Your task to perform on an android device: Open Google Chrome and click the shortcut for Amazon.com Image 0: 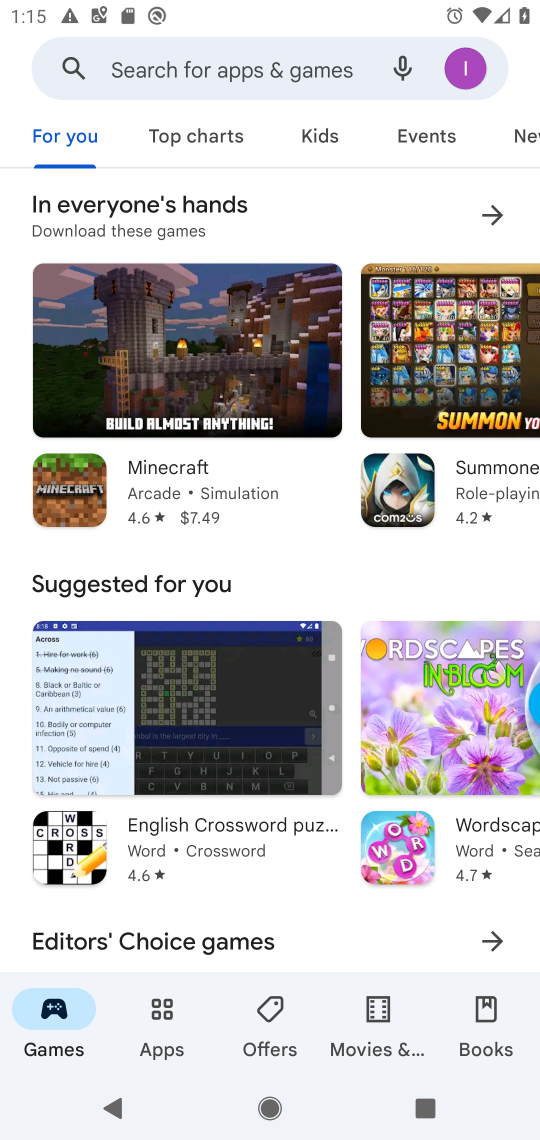
Step 0: press home button
Your task to perform on an android device: Open Google Chrome and click the shortcut for Amazon.com Image 1: 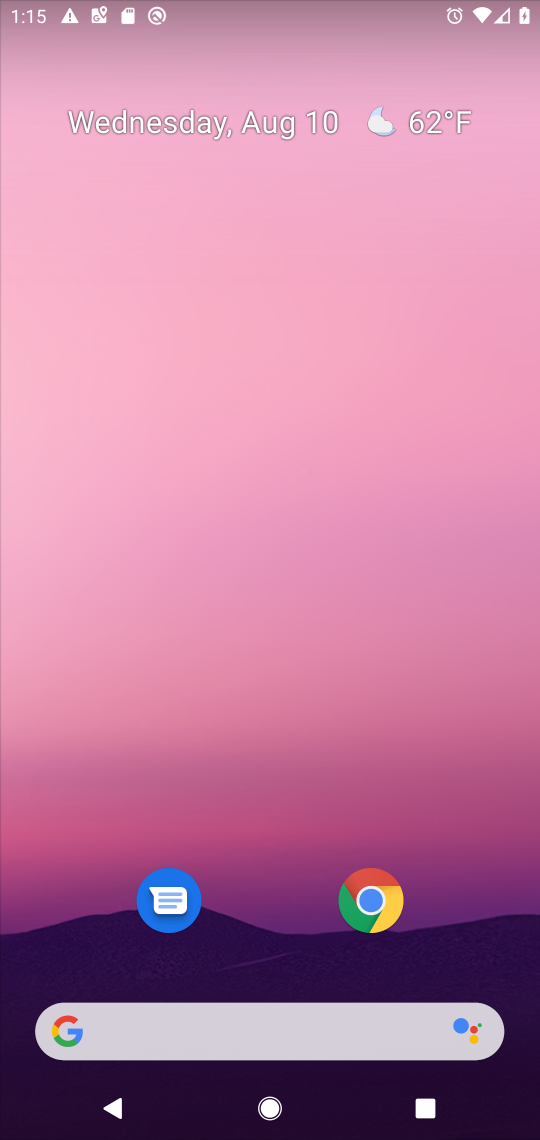
Step 1: drag from (254, 929) to (239, 13)
Your task to perform on an android device: Open Google Chrome and click the shortcut for Amazon.com Image 2: 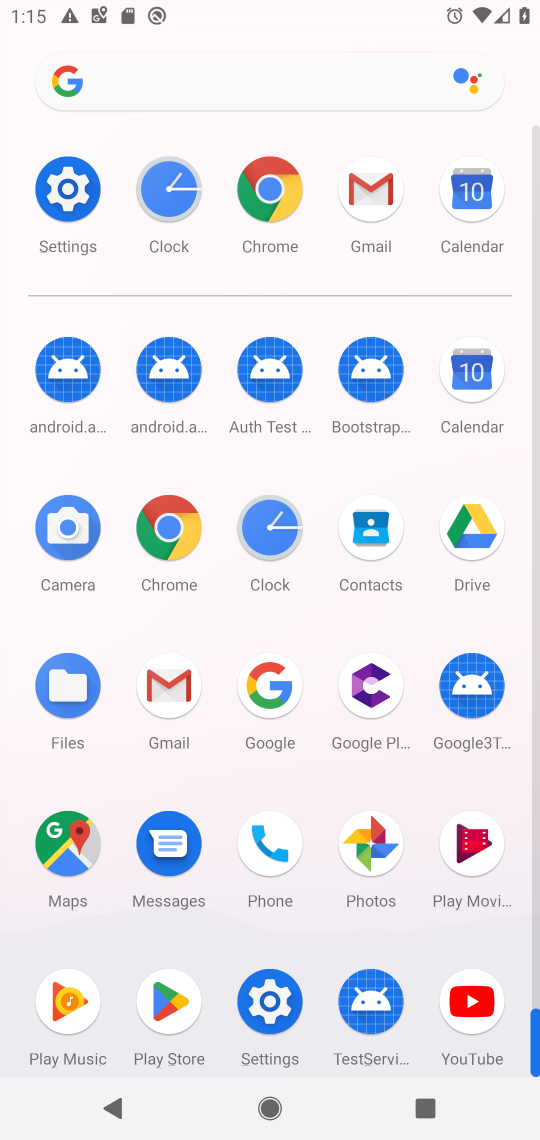
Step 2: click (272, 189)
Your task to perform on an android device: Open Google Chrome and click the shortcut for Amazon.com Image 3: 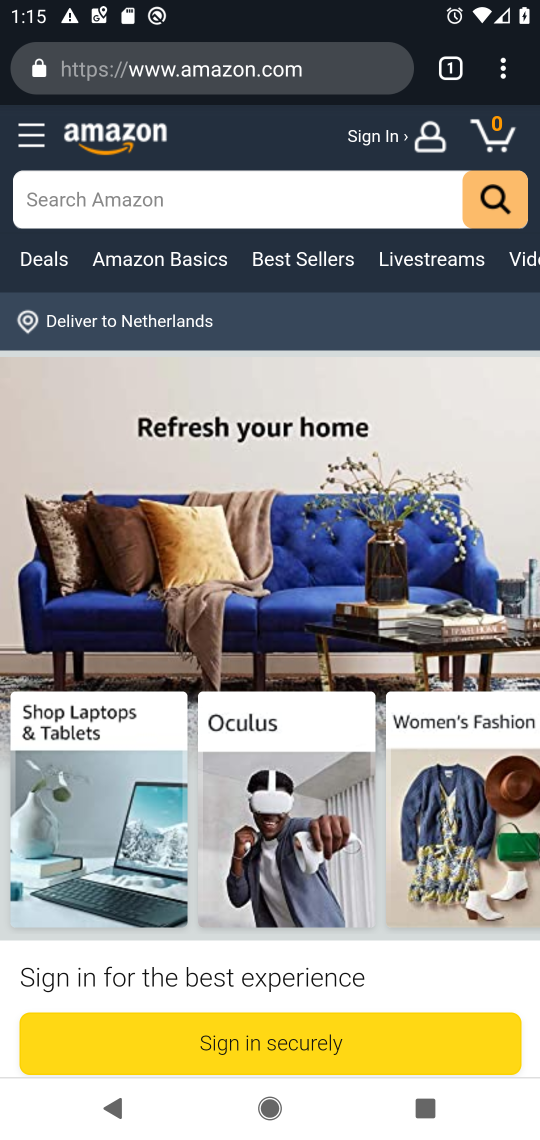
Step 3: task complete